Your task to perform on an android device: Open accessibility settings Image 0: 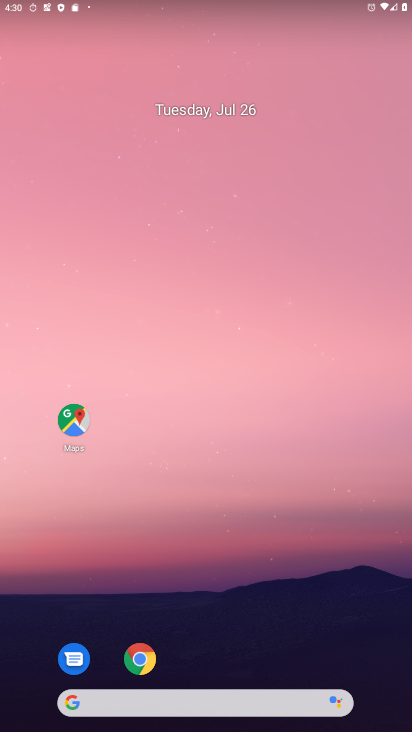
Step 0: press home button
Your task to perform on an android device: Open accessibility settings Image 1: 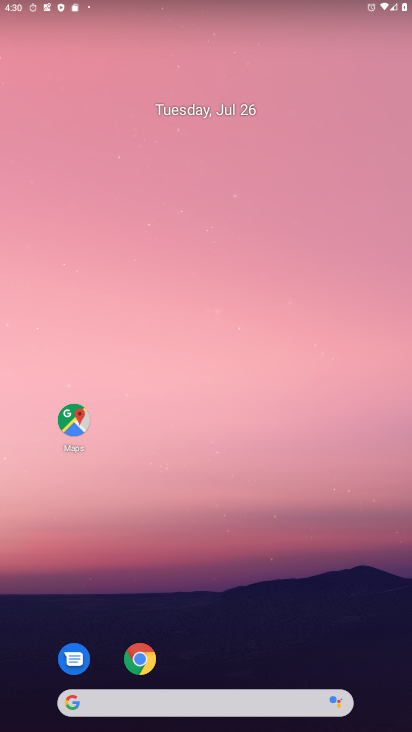
Step 1: drag from (247, 672) to (282, 118)
Your task to perform on an android device: Open accessibility settings Image 2: 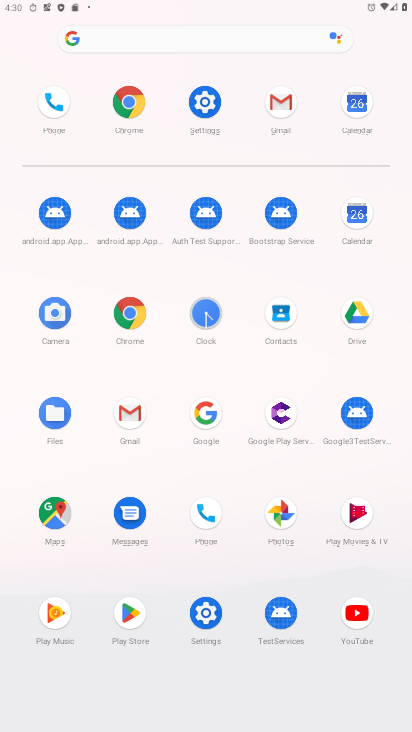
Step 2: click (205, 98)
Your task to perform on an android device: Open accessibility settings Image 3: 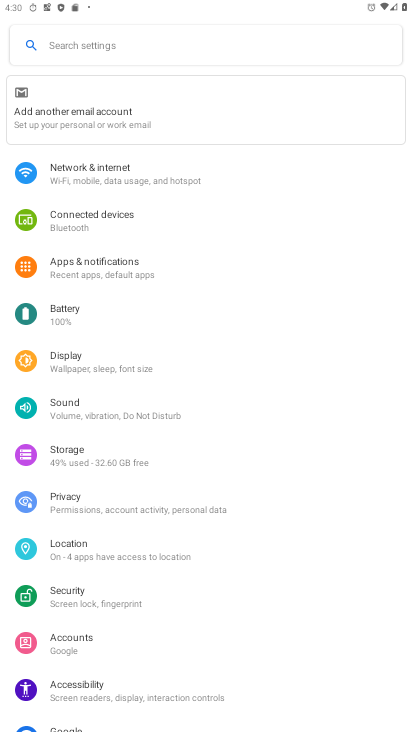
Step 3: click (86, 687)
Your task to perform on an android device: Open accessibility settings Image 4: 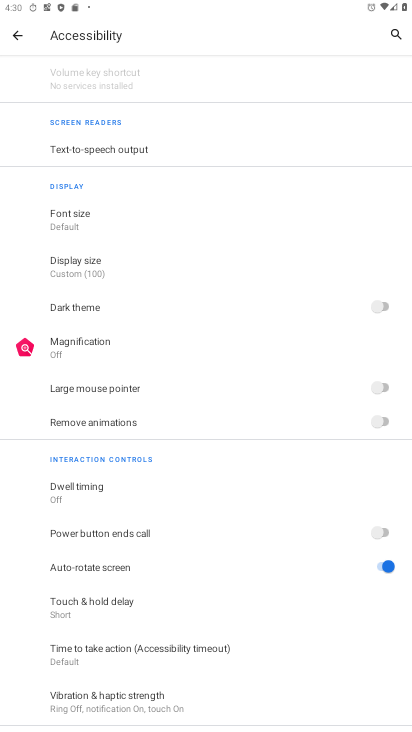
Step 4: task complete